Your task to perform on an android device: Open Youtube and go to the subscriptions tab Image 0: 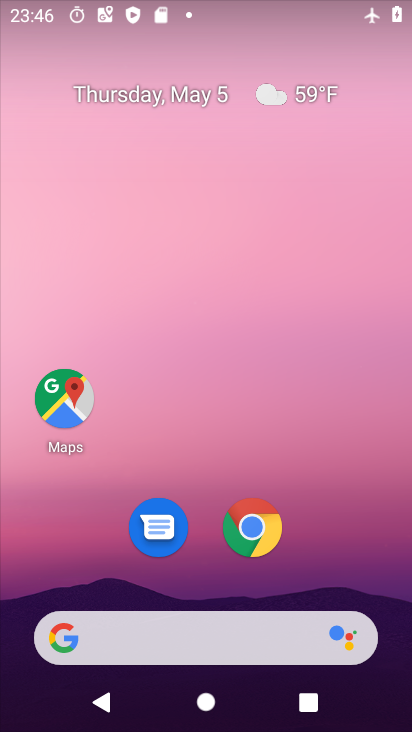
Step 0: drag from (208, 582) to (240, 95)
Your task to perform on an android device: Open Youtube and go to the subscriptions tab Image 1: 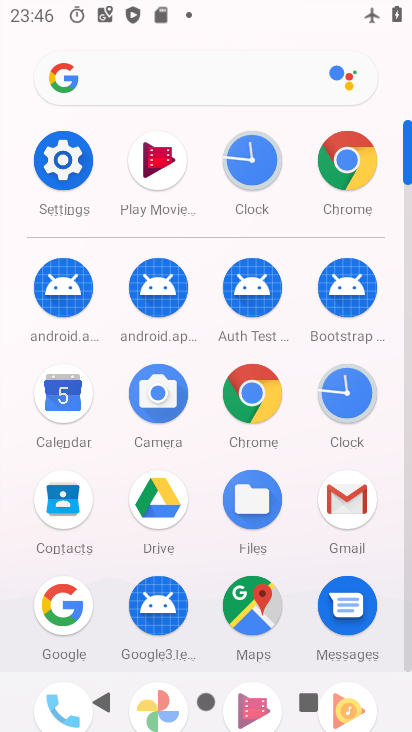
Step 1: drag from (305, 550) to (332, 234)
Your task to perform on an android device: Open Youtube and go to the subscriptions tab Image 2: 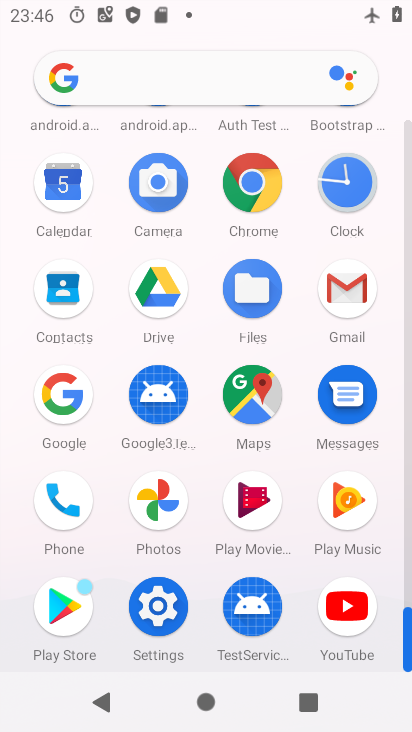
Step 2: click (356, 617)
Your task to perform on an android device: Open Youtube and go to the subscriptions tab Image 3: 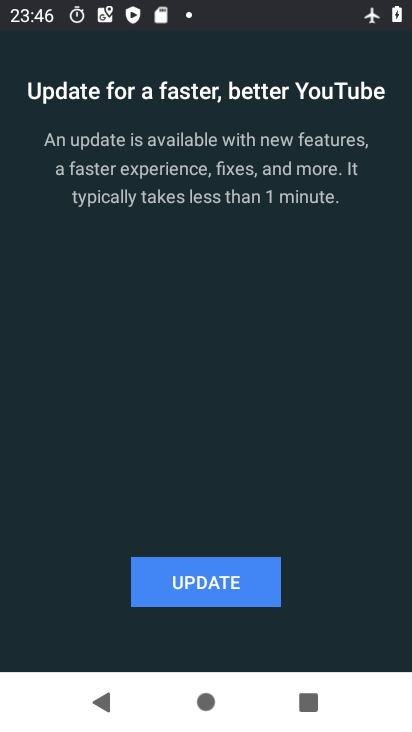
Step 3: click (186, 591)
Your task to perform on an android device: Open Youtube and go to the subscriptions tab Image 4: 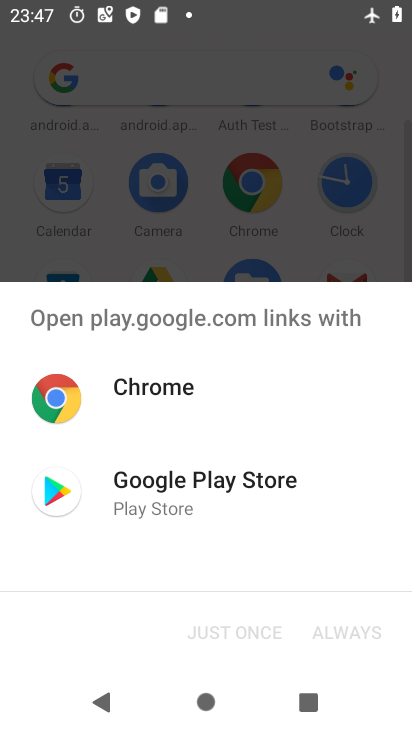
Step 4: click (136, 488)
Your task to perform on an android device: Open Youtube and go to the subscriptions tab Image 5: 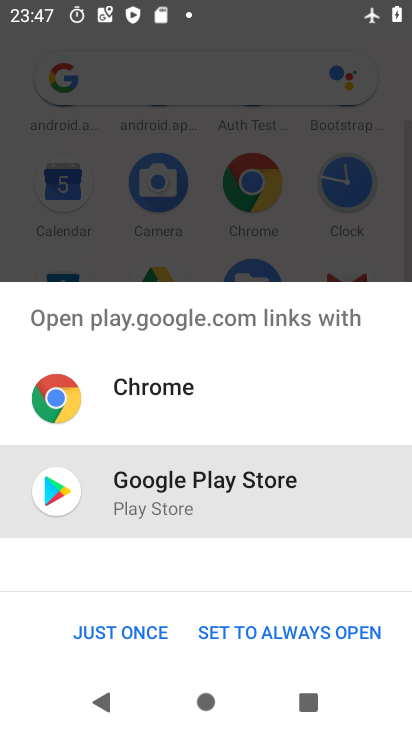
Step 5: click (116, 639)
Your task to perform on an android device: Open Youtube and go to the subscriptions tab Image 6: 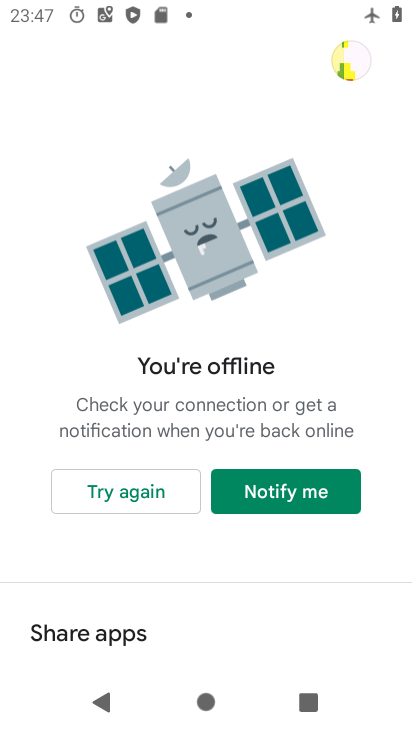
Step 6: task complete